Your task to perform on an android device: Go to ESPN.com Image 0: 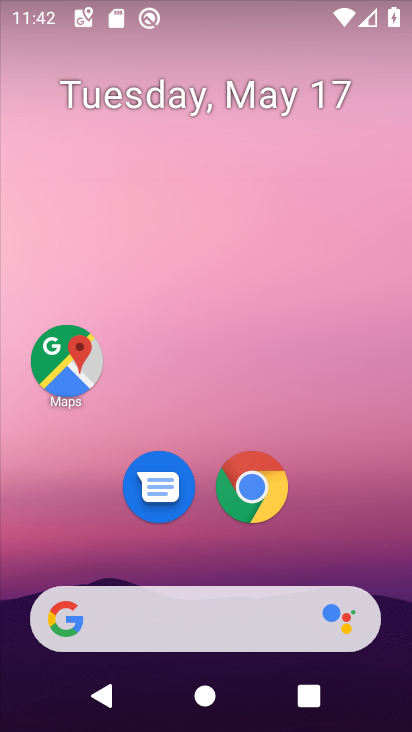
Step 0: click (272, 475)
Your task to perform on an android device: Go to ESPN.com Image 1: 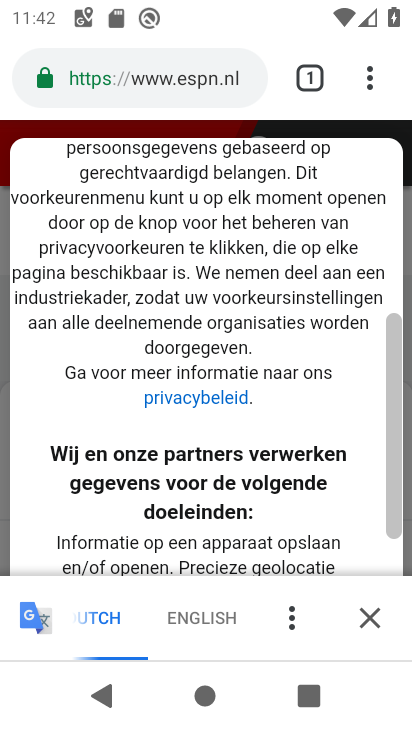
Step 1: click (367, 628)
Your task to perform on an android device: Go to ESPN.com Image 2: 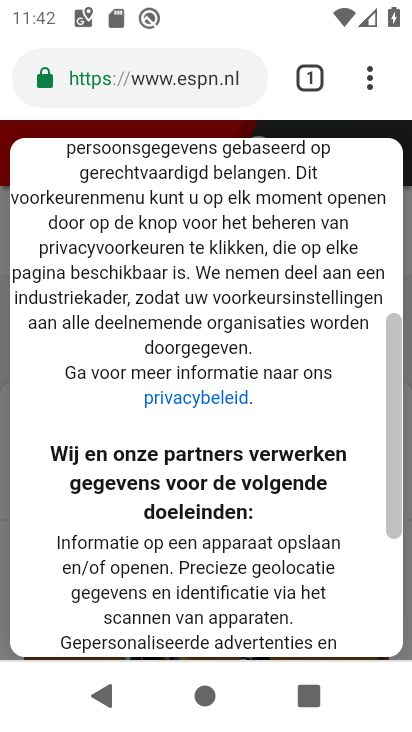
Step 2: drag from (319, 619) to (316, 112)
Your task to perform on an android device: Go to ESPN.com Image 3: 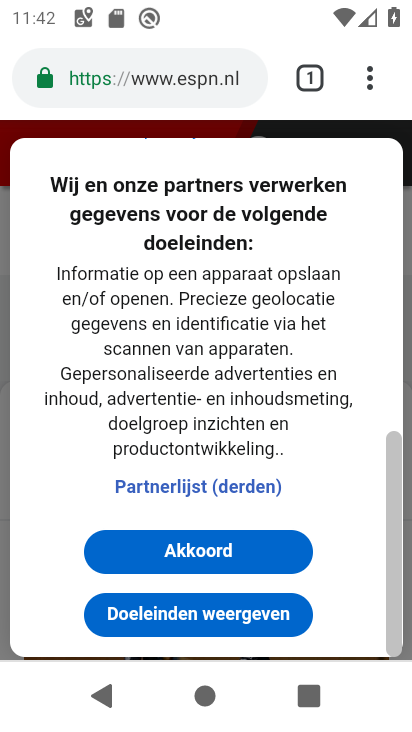
Step 3: click (233, 548)
Your task to perform on an android device: Go to ESPN.com Image 4: 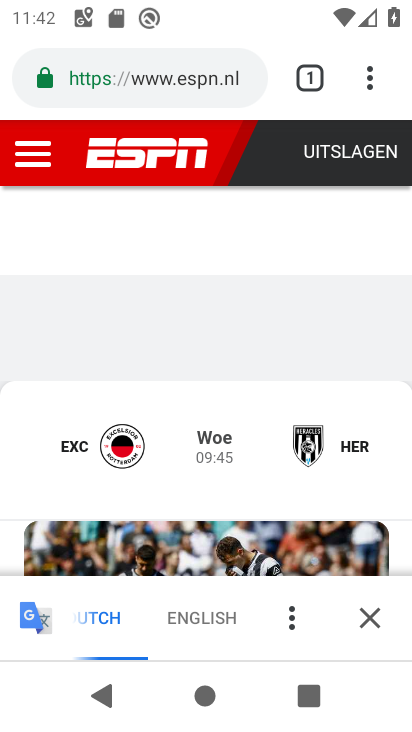
Step 4: task complete